Your task to perform on an android device: show emergency info Image 0: 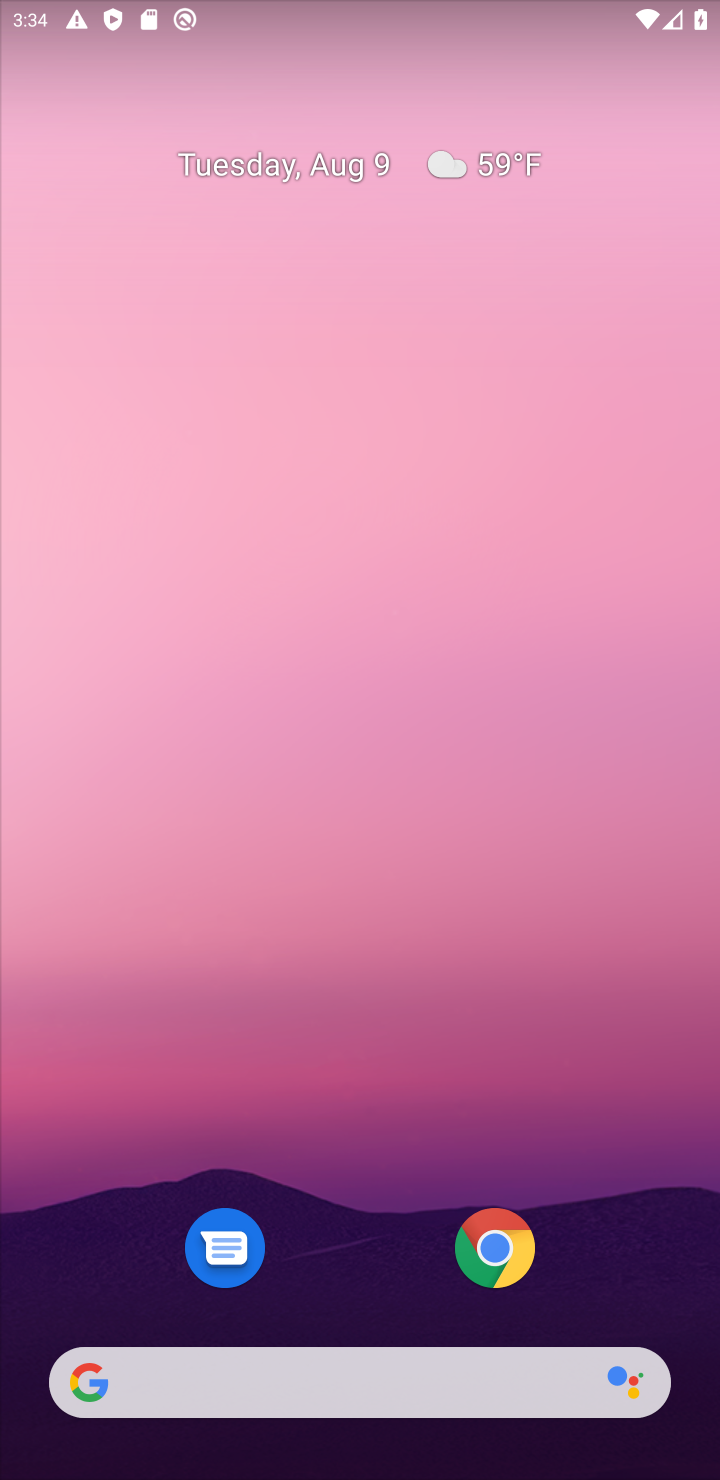
Step 0: drag from (456, 1046) to (298, 35)
Your task to perform on an android device: show emergency info Image 1: 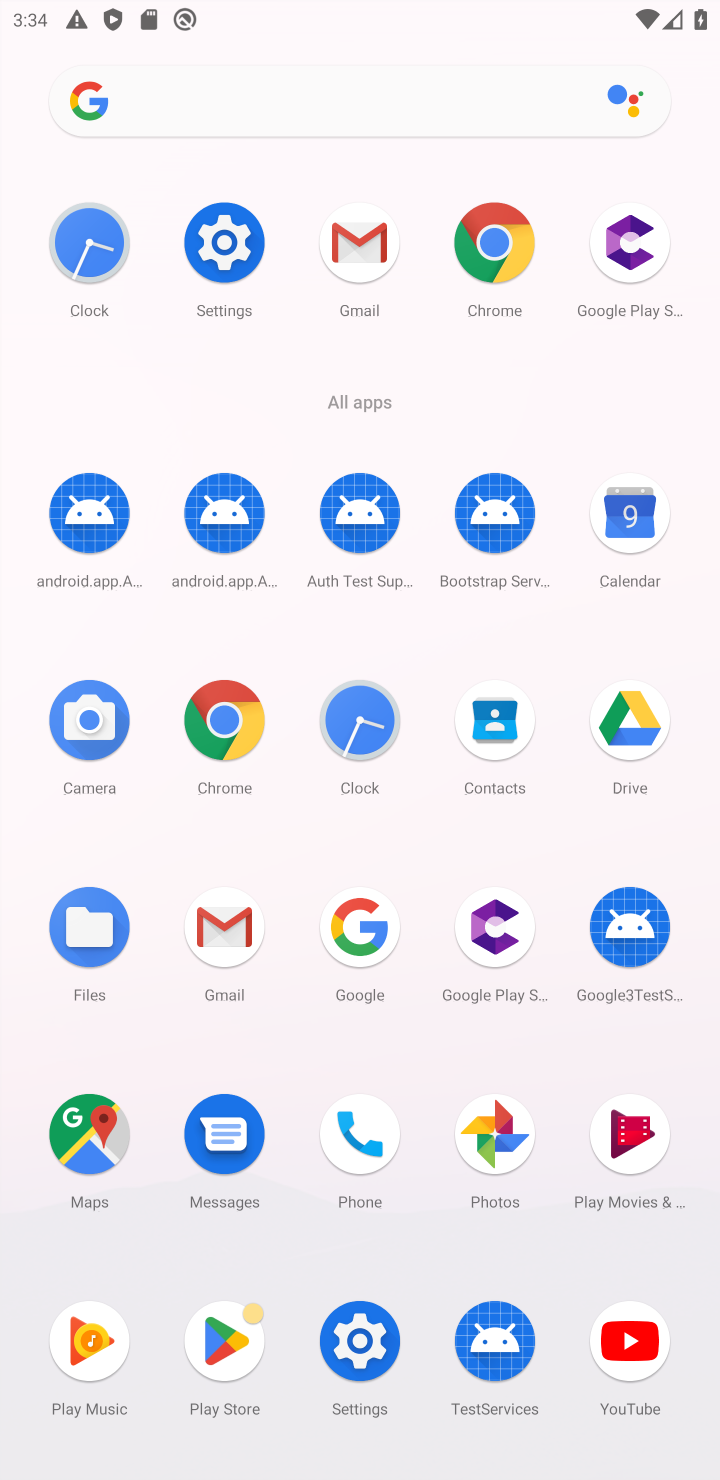
Step 1: click (211, 217)
Your task to perform on an android device: show emergency info Image 2: 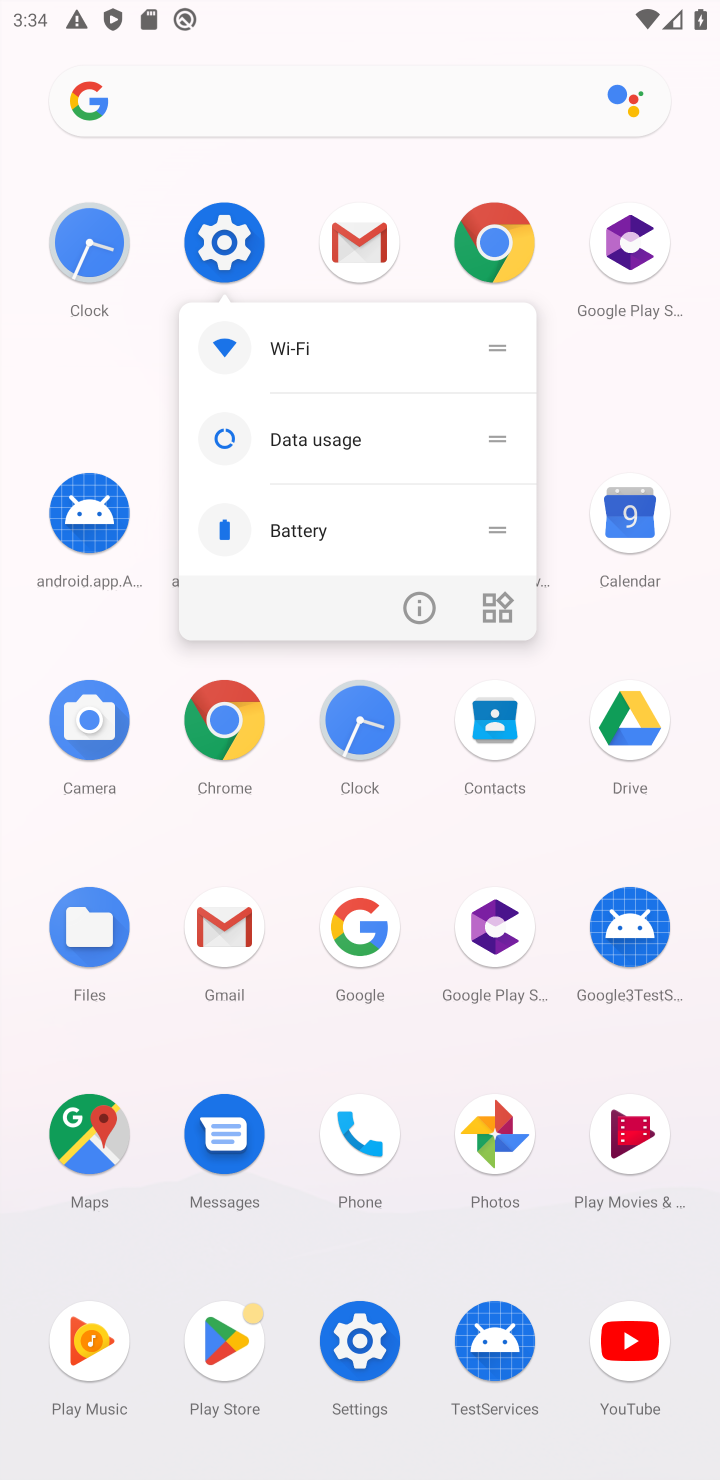
Step 2: click (217, 235)
Your task to perform on an android device: show emergency info Image 3: 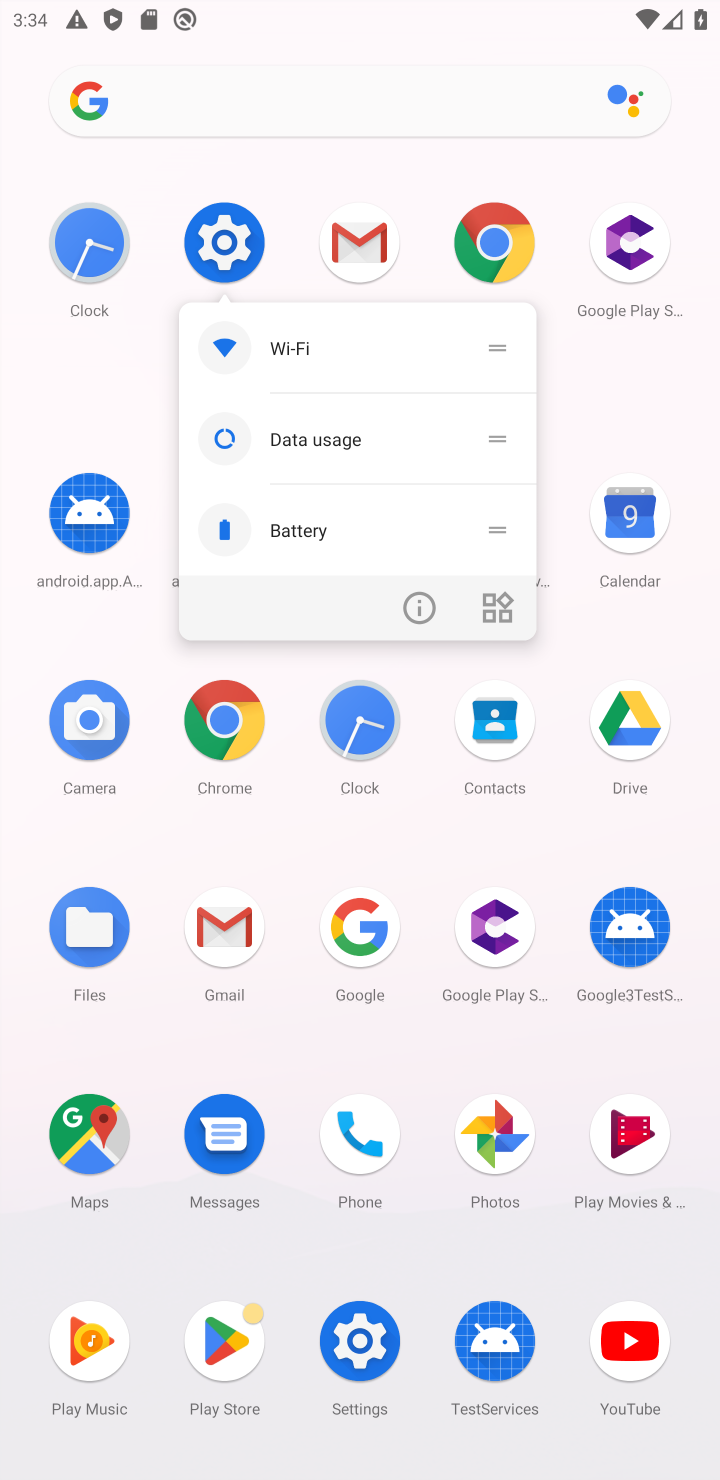
Step 3: click (229, 244)
Your task to perform on an android device: show emergency info Image 4: 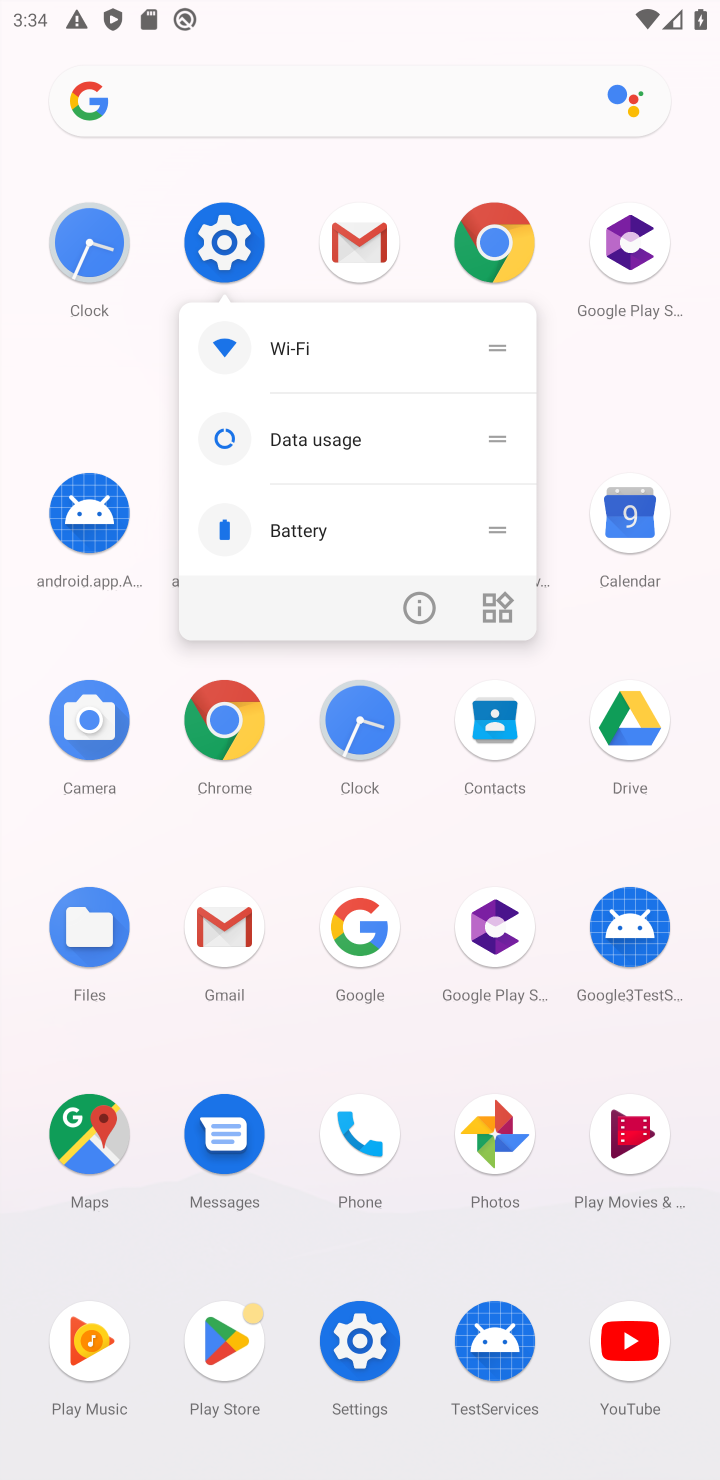
Step 4: click (354, 1336)
Your task to perform on an android device: show emergency info Image 5: 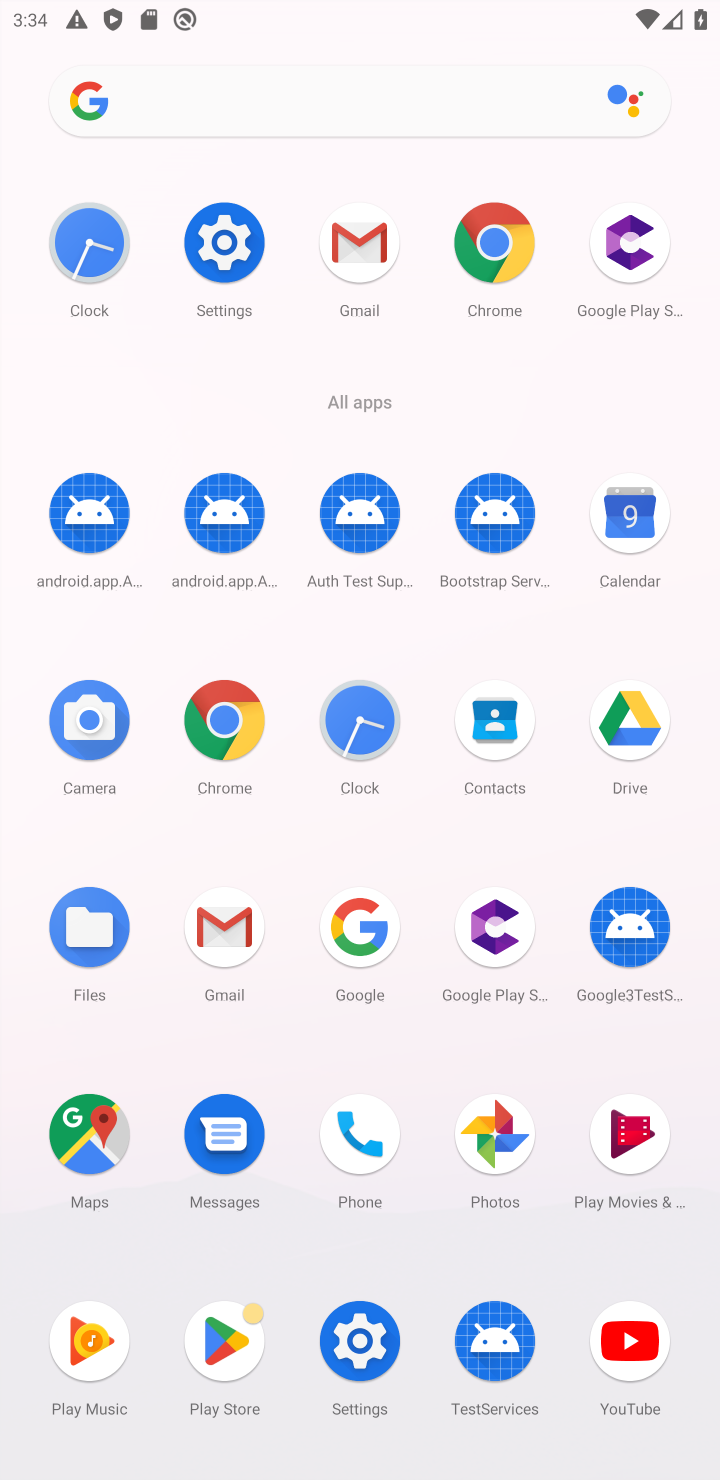
Step 5: click (343, 1334)
Your task to perform on an android device: show emergency info Image 6: 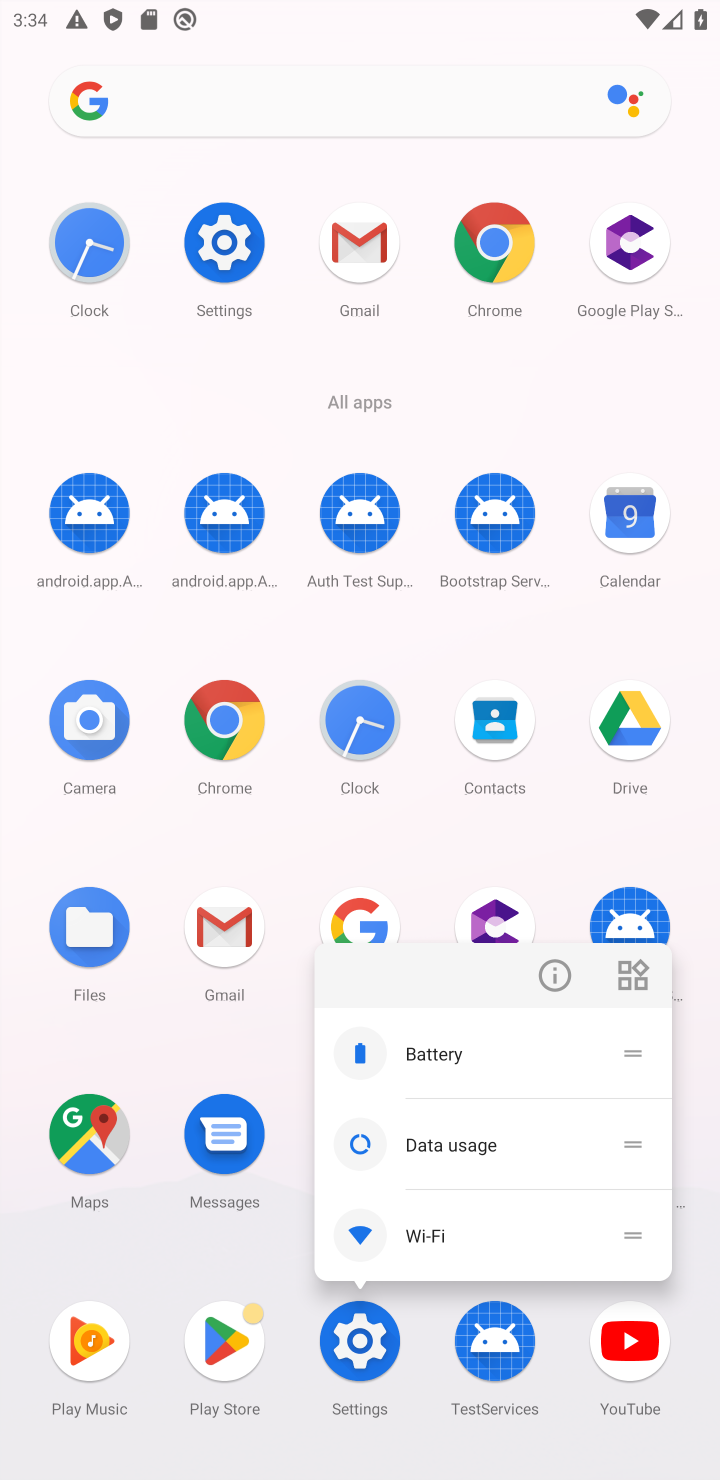
Step 6: click (526, 797)
Your task to perform on an android device: show emergency info Image 7: 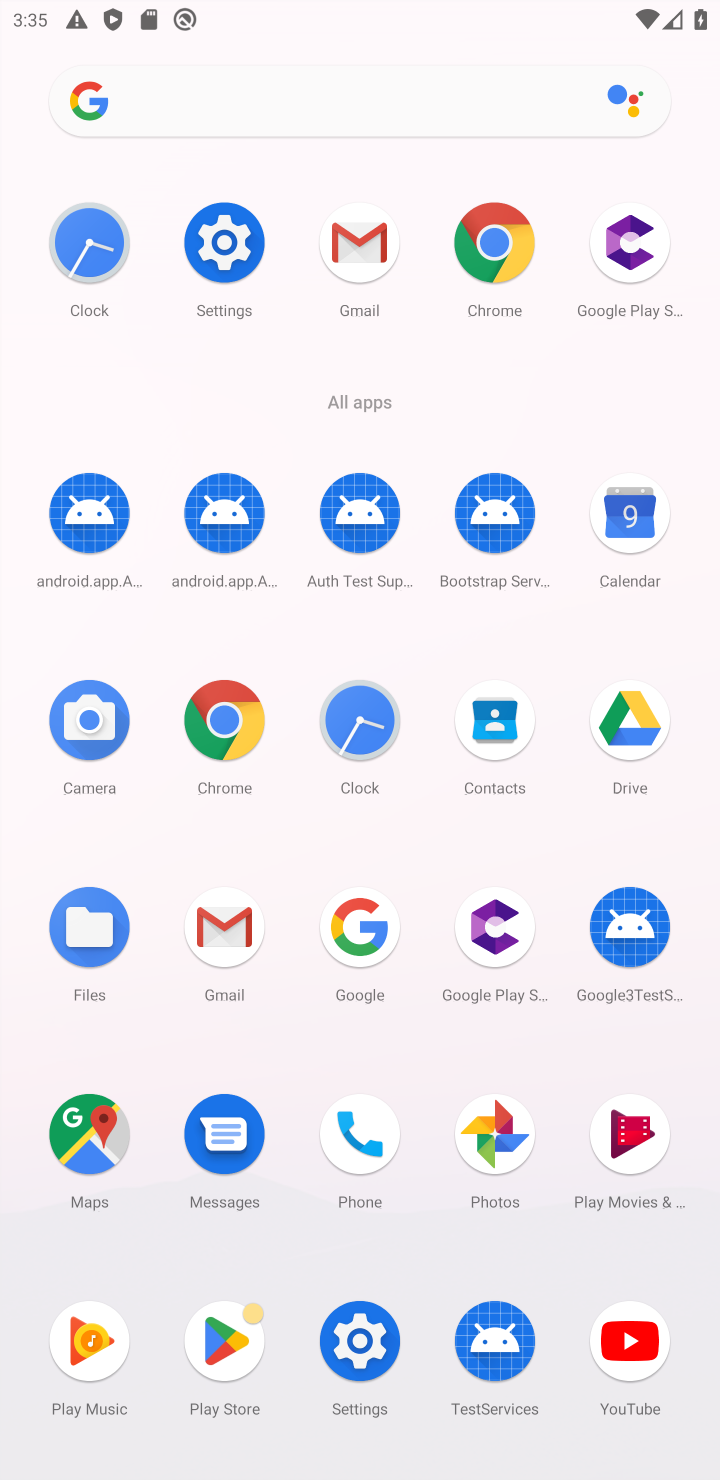
Step 7: click (362, 1326)
Your task to perform on an android device: show emergency info Image 8: 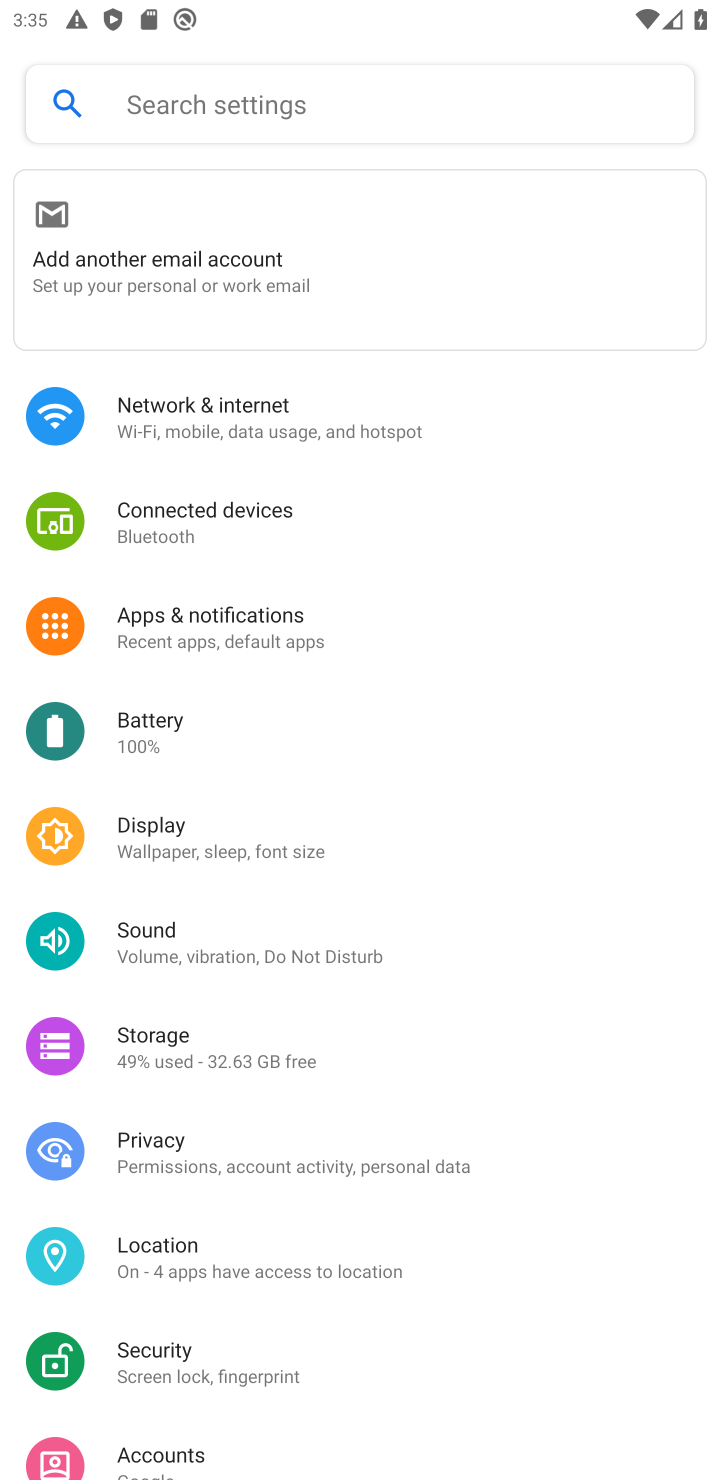
Step 8: drag from (333, 1340) to (115, 92)
Your task to perform on an android device: show emergency info Image 9: 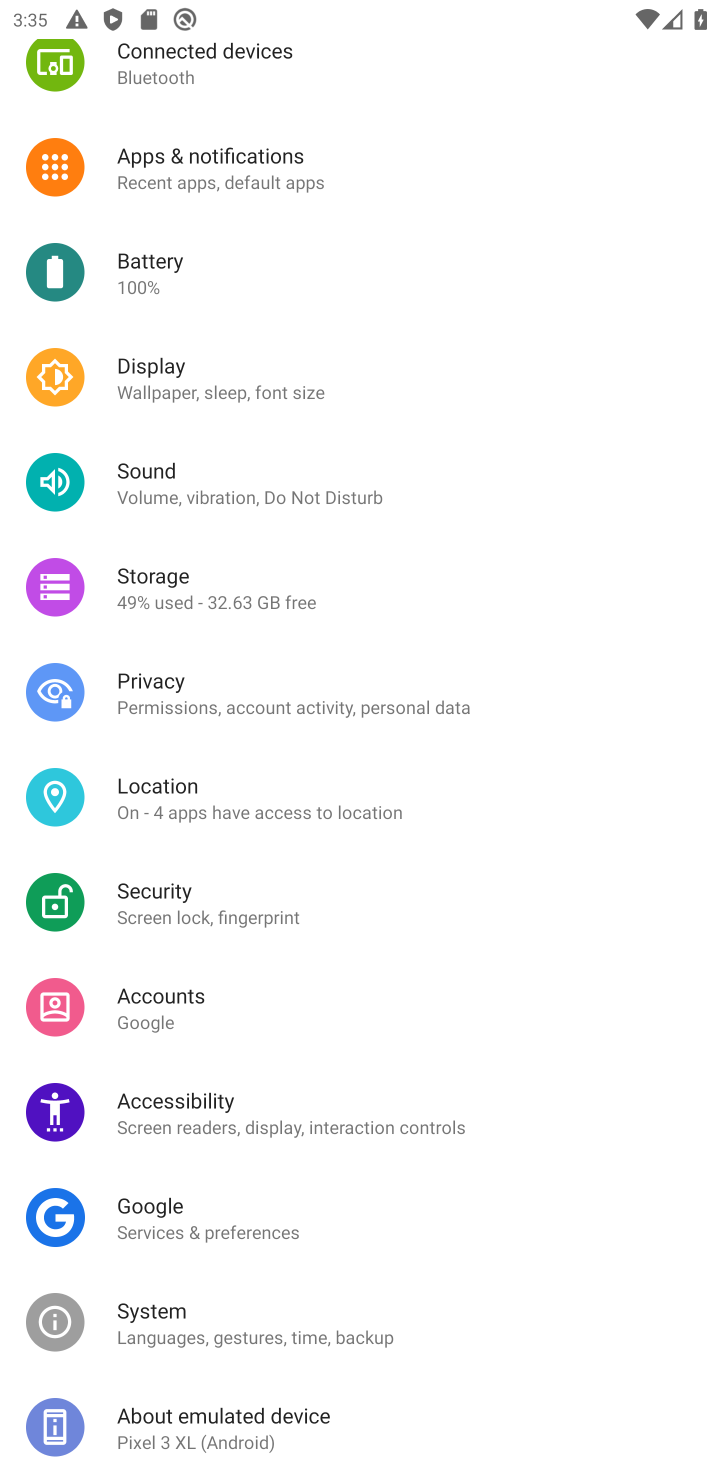
Step 9: click (152, 1430)
Your task to perform on an android device: show emergency info Image 10: 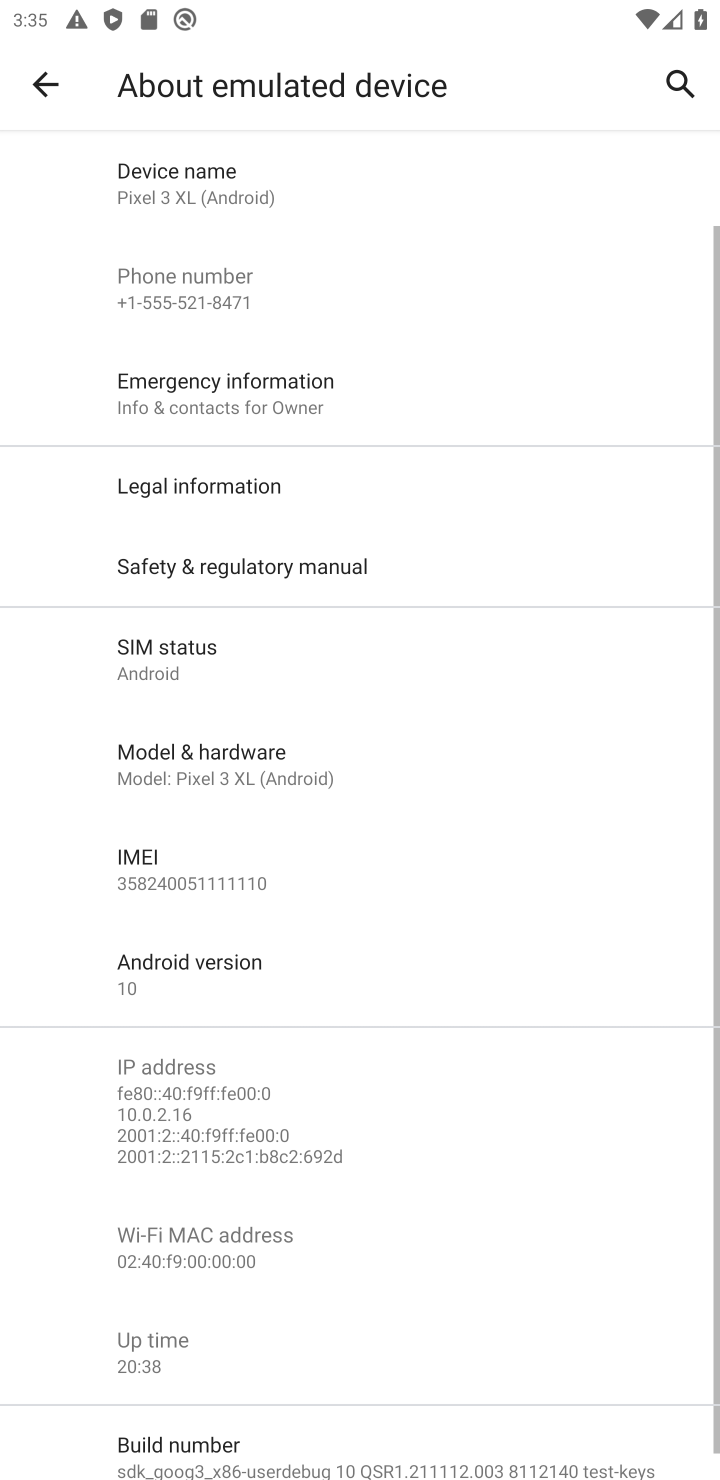
Step 10: click (256, 396)
Your task to perform on an android device: show emergency info Image 11: 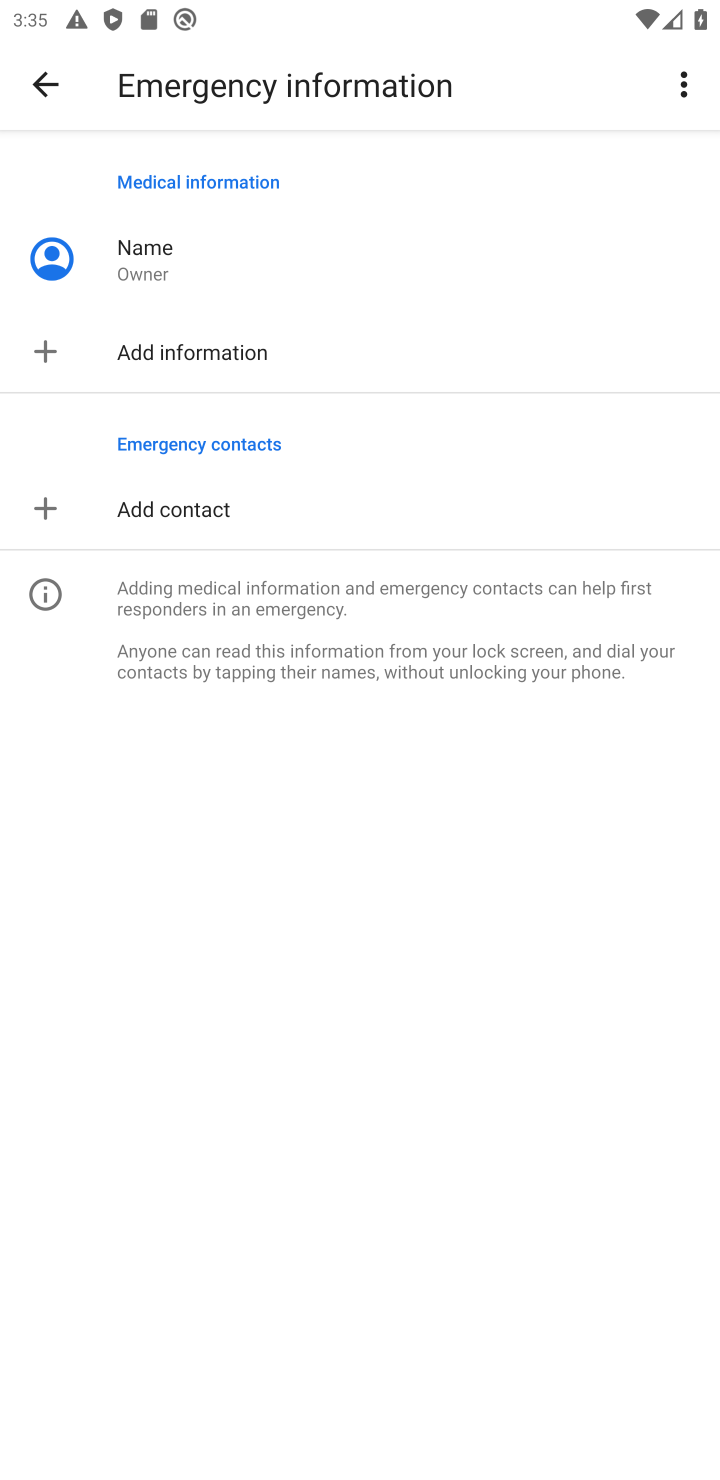
Step 11: task complete